Your task to perform on an android device: stop showing notifications on the lock screen Image 0: 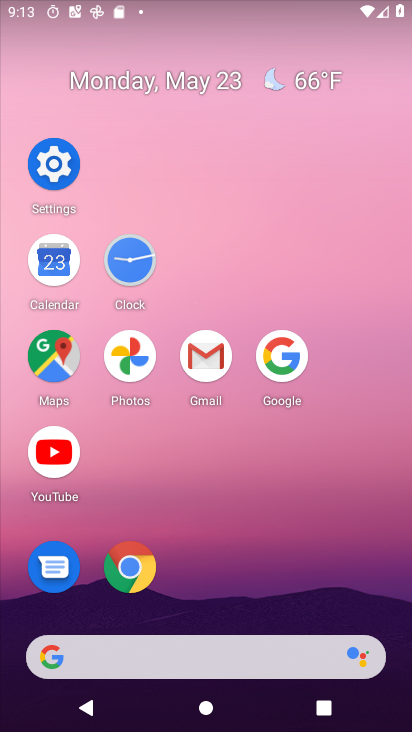
Step 0: click (50, 173)
Your task to perform on an android device: stop showing notifications on the lock screen Image 1: 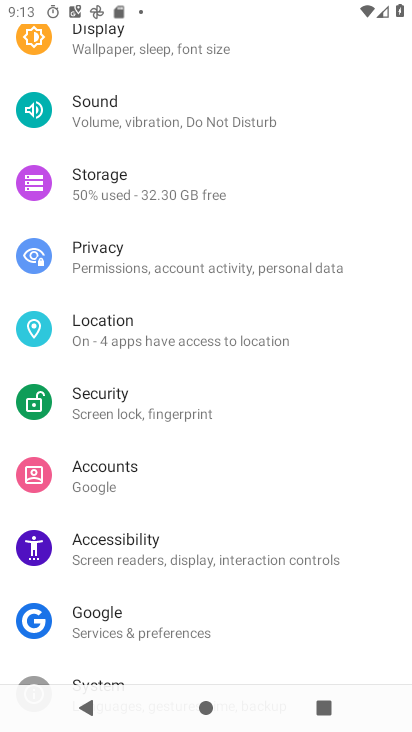
Step 1: drag from (266, 281) to (244, 645)
Your task to perform on an android device: stop showing notifications on the lock screen Image 2: 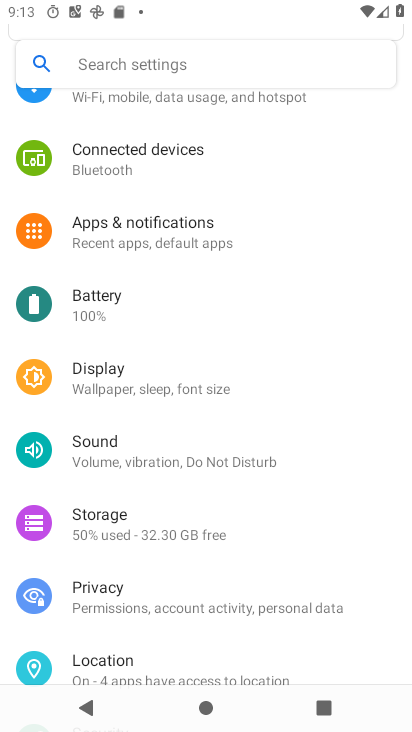
Step 2: drag from (191, 284) to (210, 586)
Your task to perform on an android device: stop showing notifications on the lock screen Image 3: 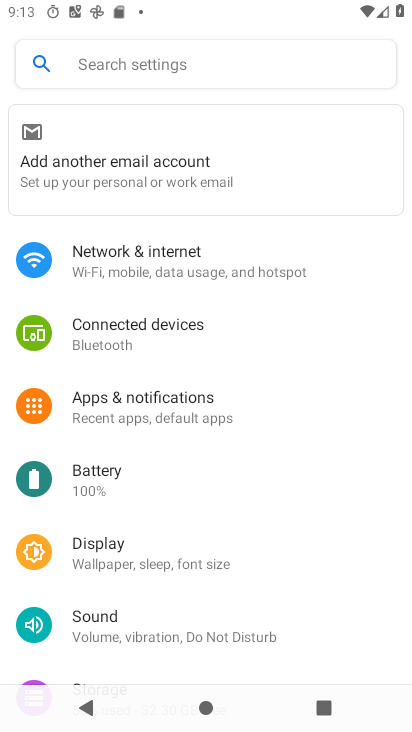
Step 3: click (158, 406)
Your task to perform on an android device: stop showing notifications on the lock screen Image 4: 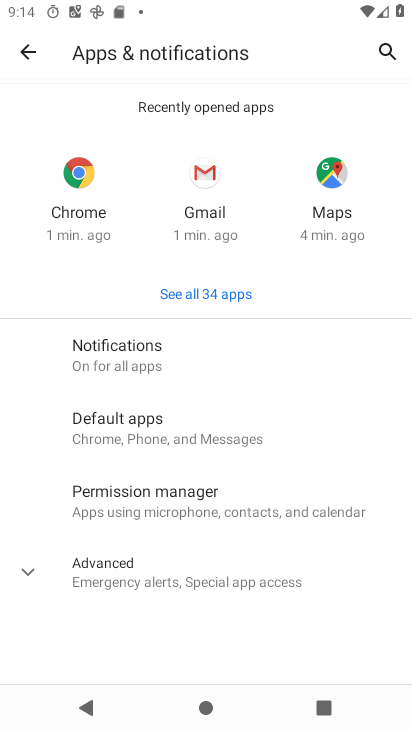
Step 4: click (158, 354)
Your task to perform on an android device: stop showing notifications on the lock screen Image 5: 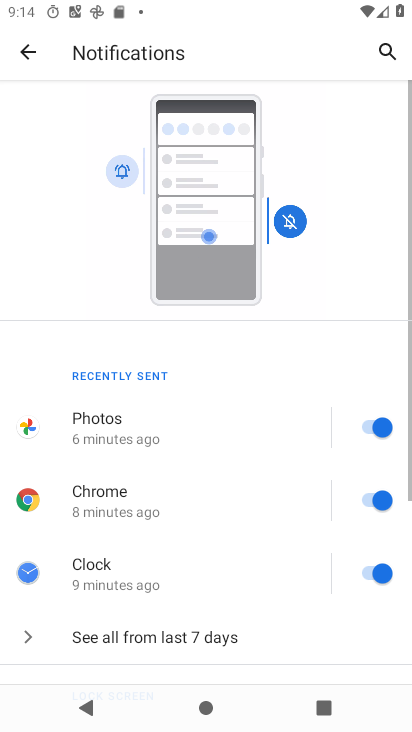
Step 5: drag from (147, 572) to (176, 222)
Your task to perform on an android device: stop showing notifications on the lock screen Image 6: 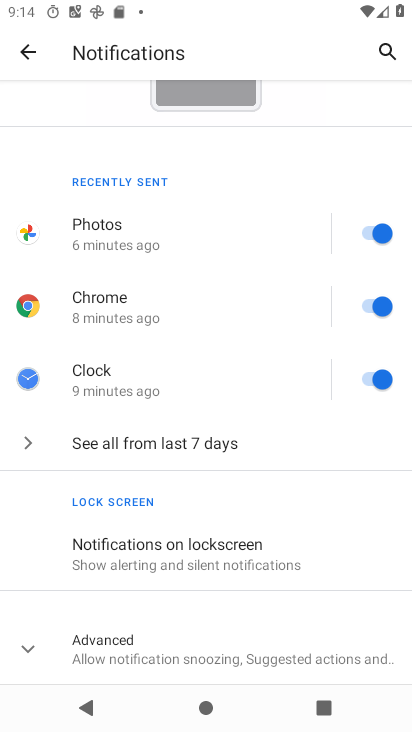
Step 6: click (142, 543)
Your task to perform on an android device: stop showing notifications on the lock screen Image 7: 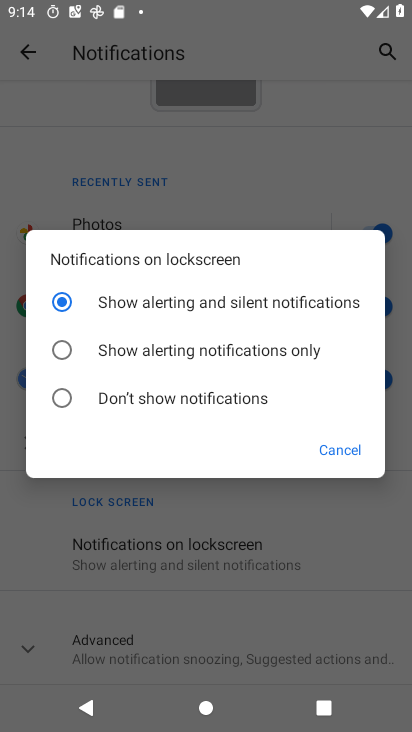
Step 7: click (143, 404)
Your task to perform on an android device: stop showing notifications on the lock screen Image 8: 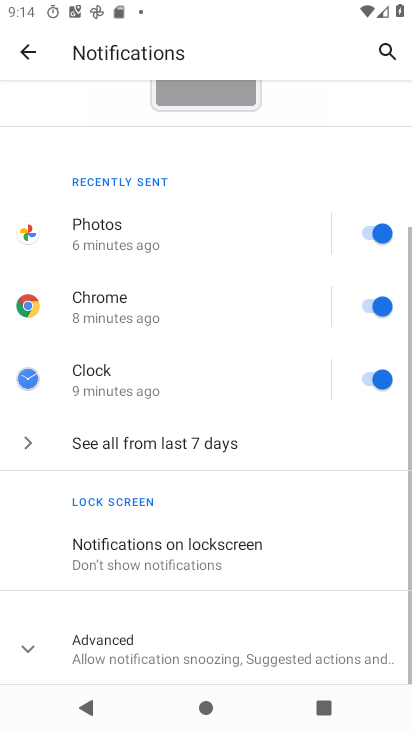
Step 8: task complete